Your task to perform on an android device: uninstall "Indeed Job Search" Image 0: 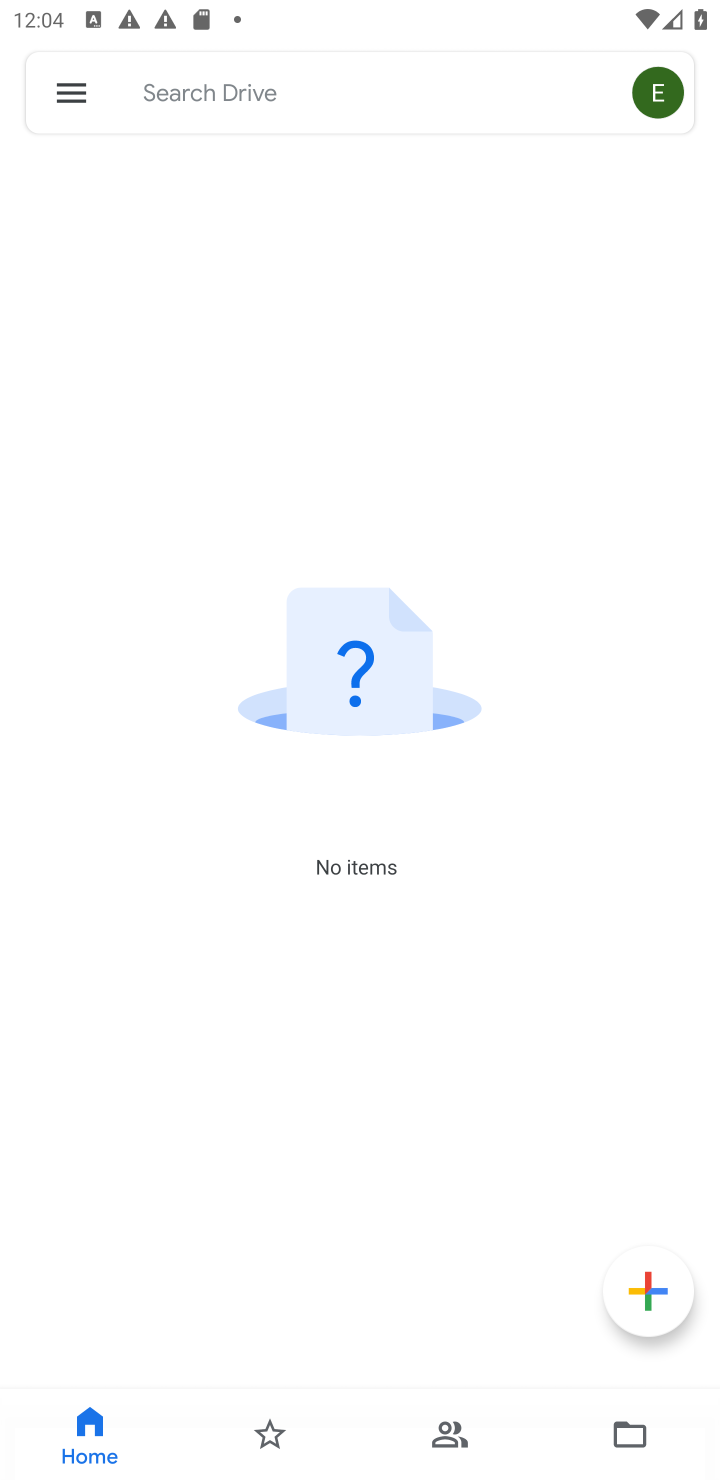
Step 0: press home button
Your task to perform on an android device: uninstall "Indeed Job Search" Image 1: 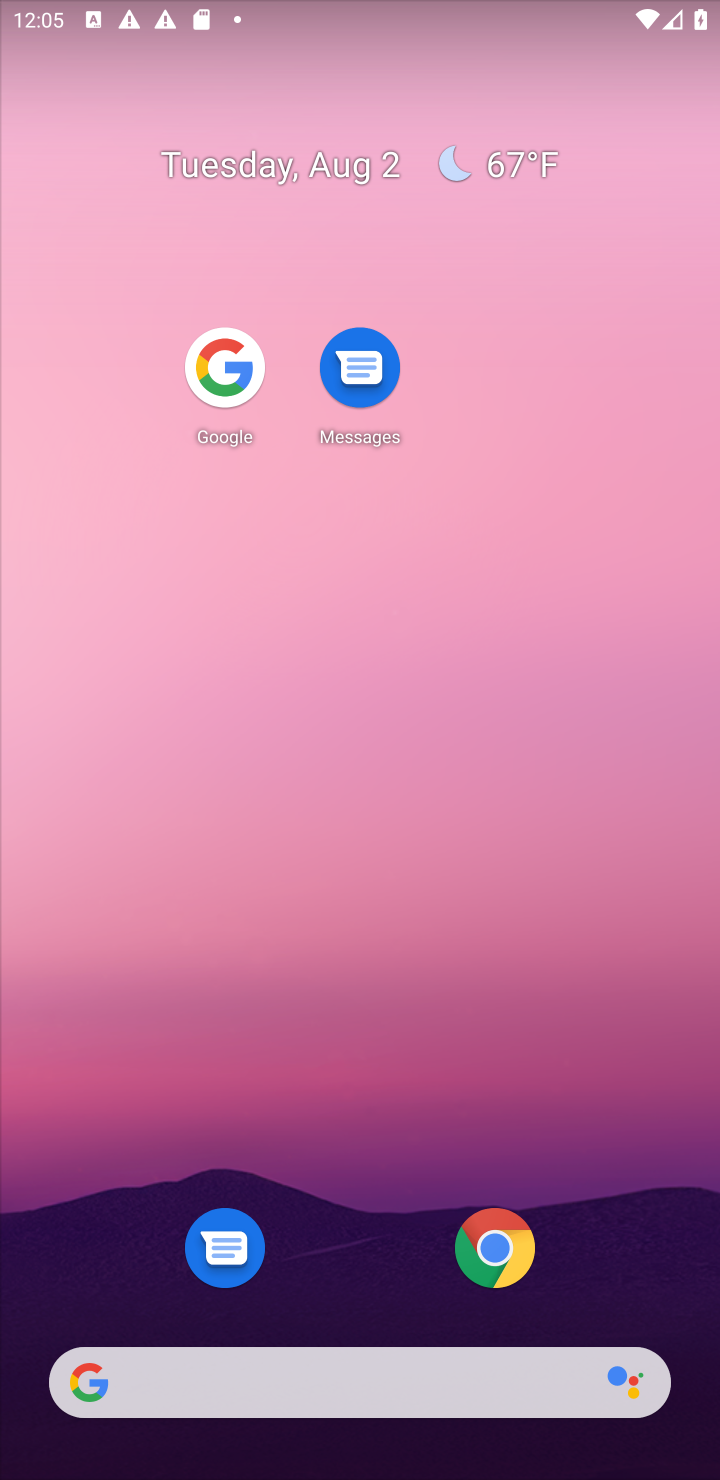
Step 1: drag from (609, 823) to (597, 183)
Your task to perform on an android device: uninstall "Indeed Job Search" Image 2: 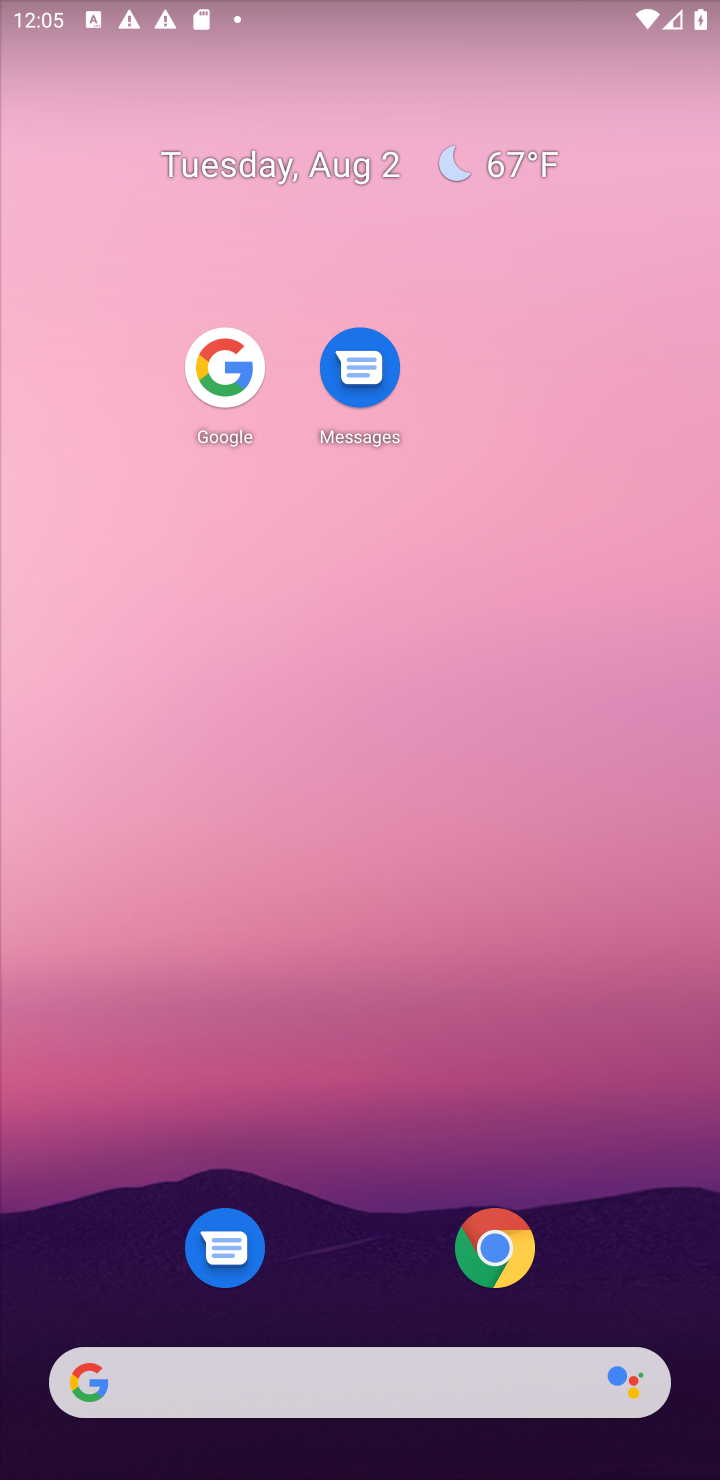
Step 2: drag from (615, 903) to (626, 162)
Your task to perform on an android device: uninstall "Indeed Job Search" Image 3: 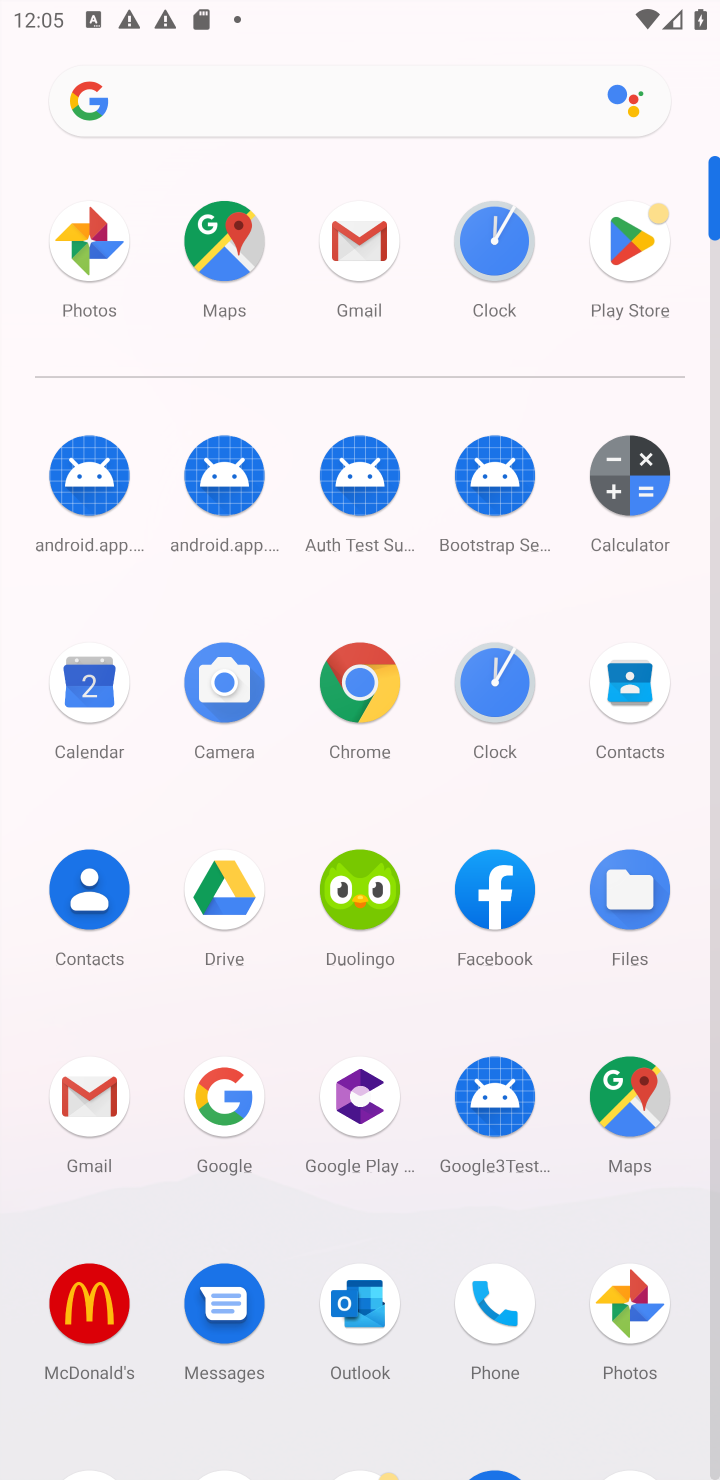
Step 3: drag from (295, 1226) to (334, 389)
Your task to perform on an android device: uninstall "Indeed Job Search" Image 4: 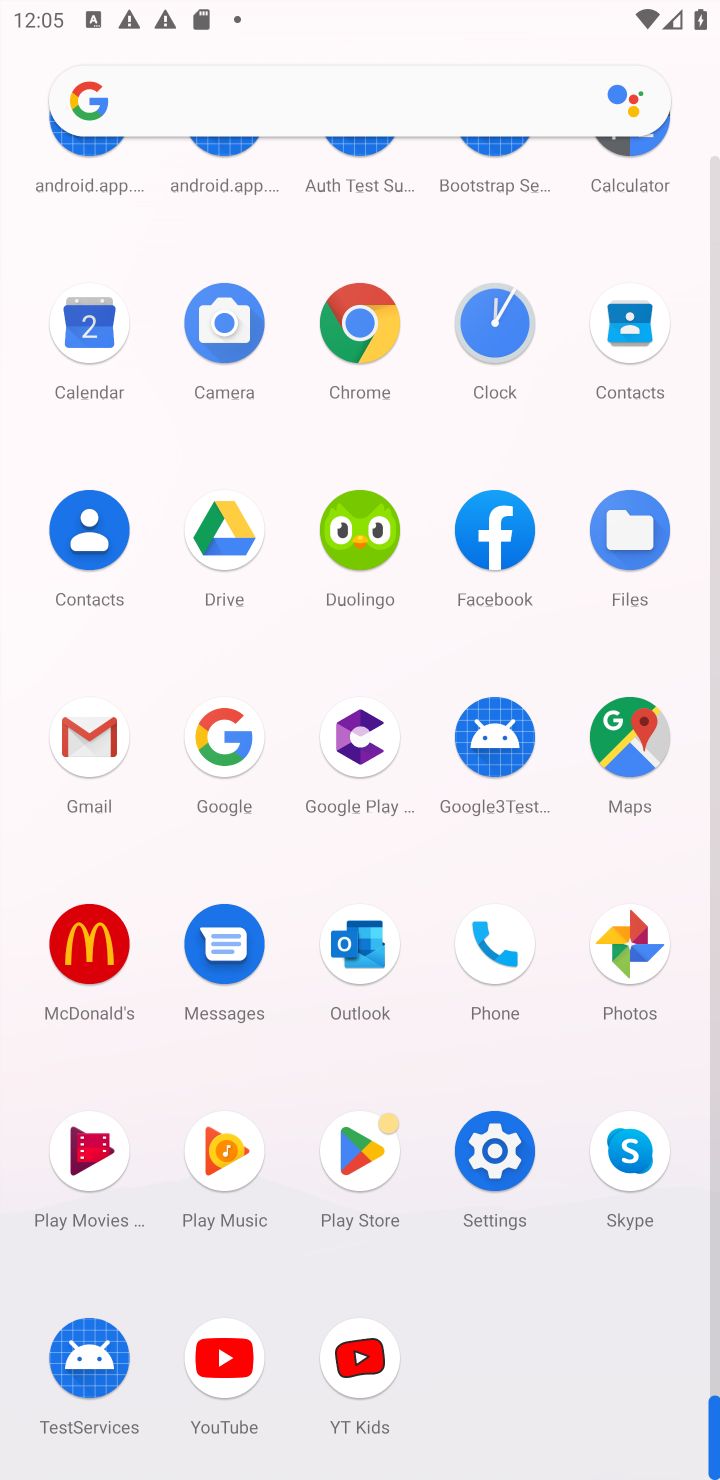
Step 4: click (370, 1154)
Your task to perform on an android device: uninstall "Indeed Job Search" Image 5: 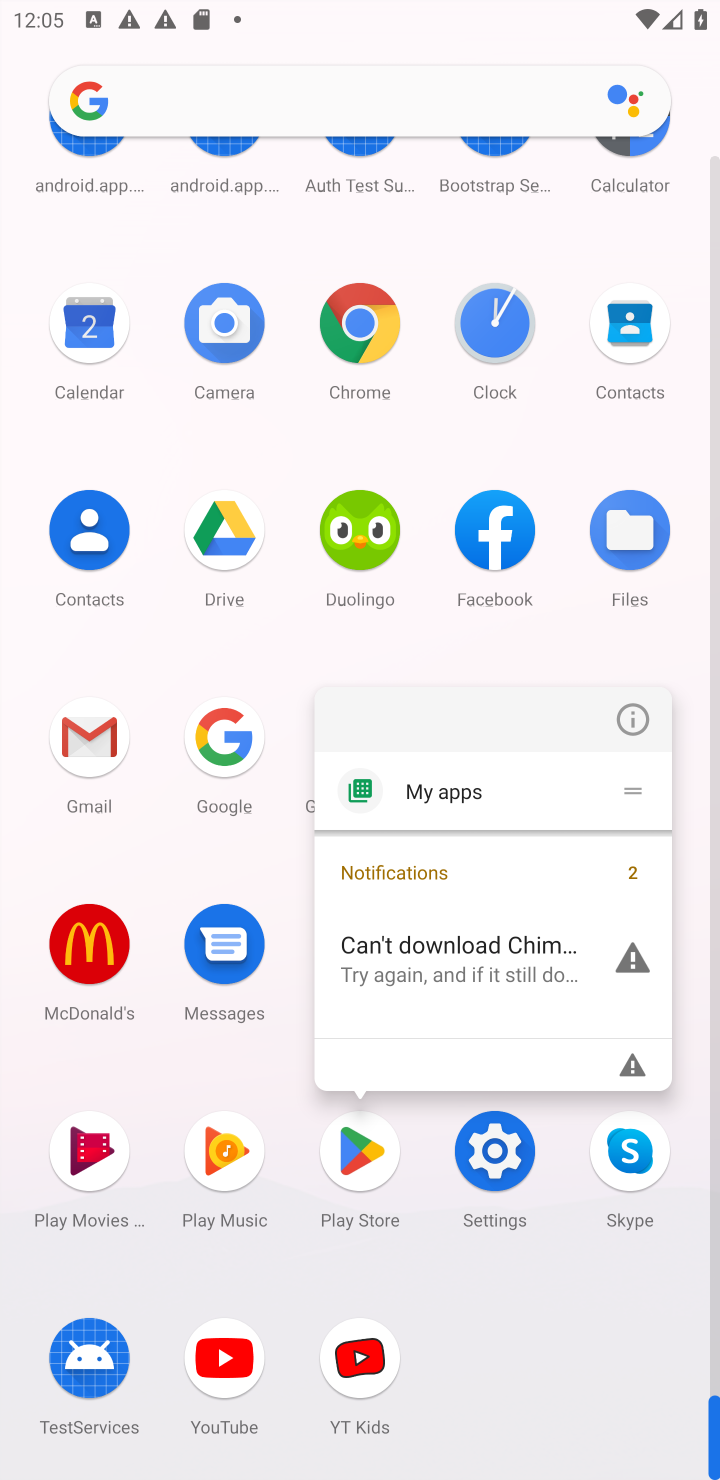
Step 5: click (370, 1154)
Your task to perform on an android device: uninstall "Indeed Job Search" Image 6: 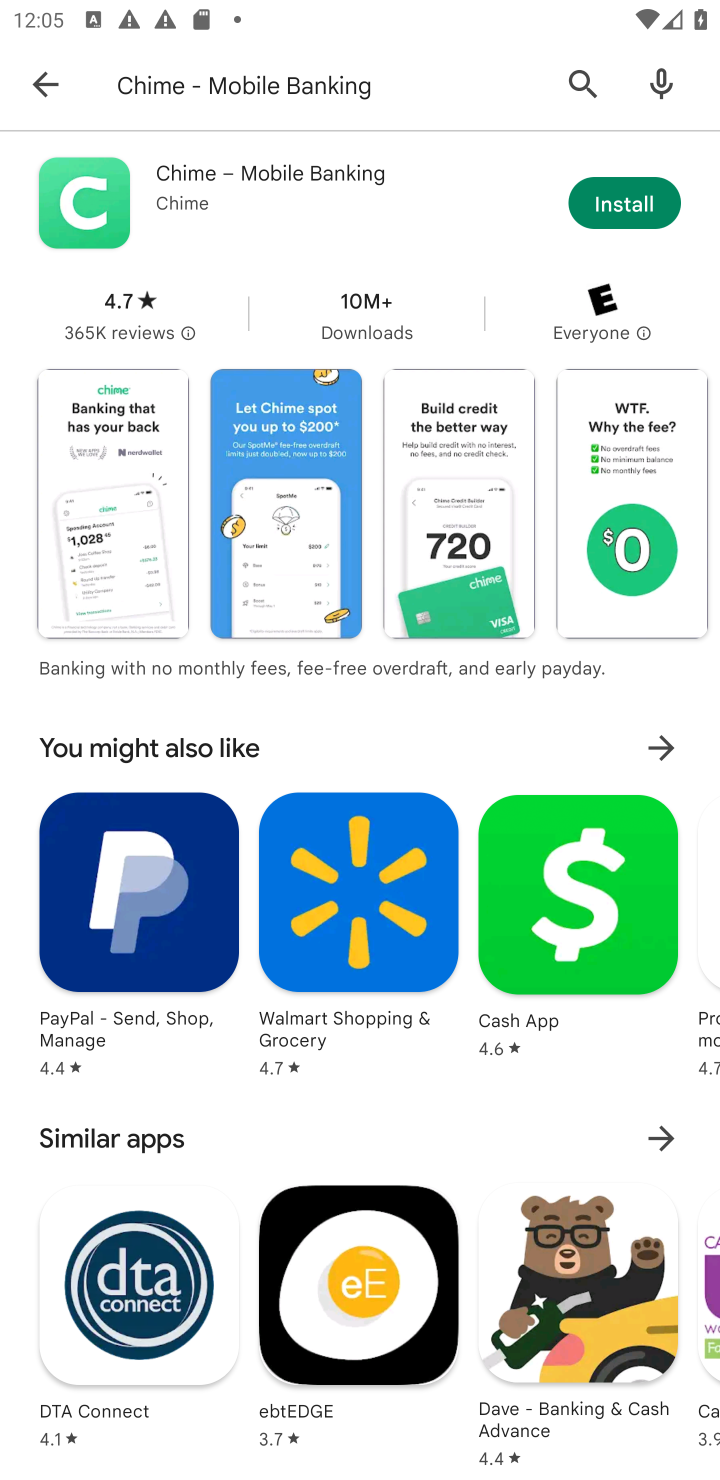
Step 6: click (419, 92)
Your task to perform on an android device: uninstall "Indeed Job Search" Image 7: 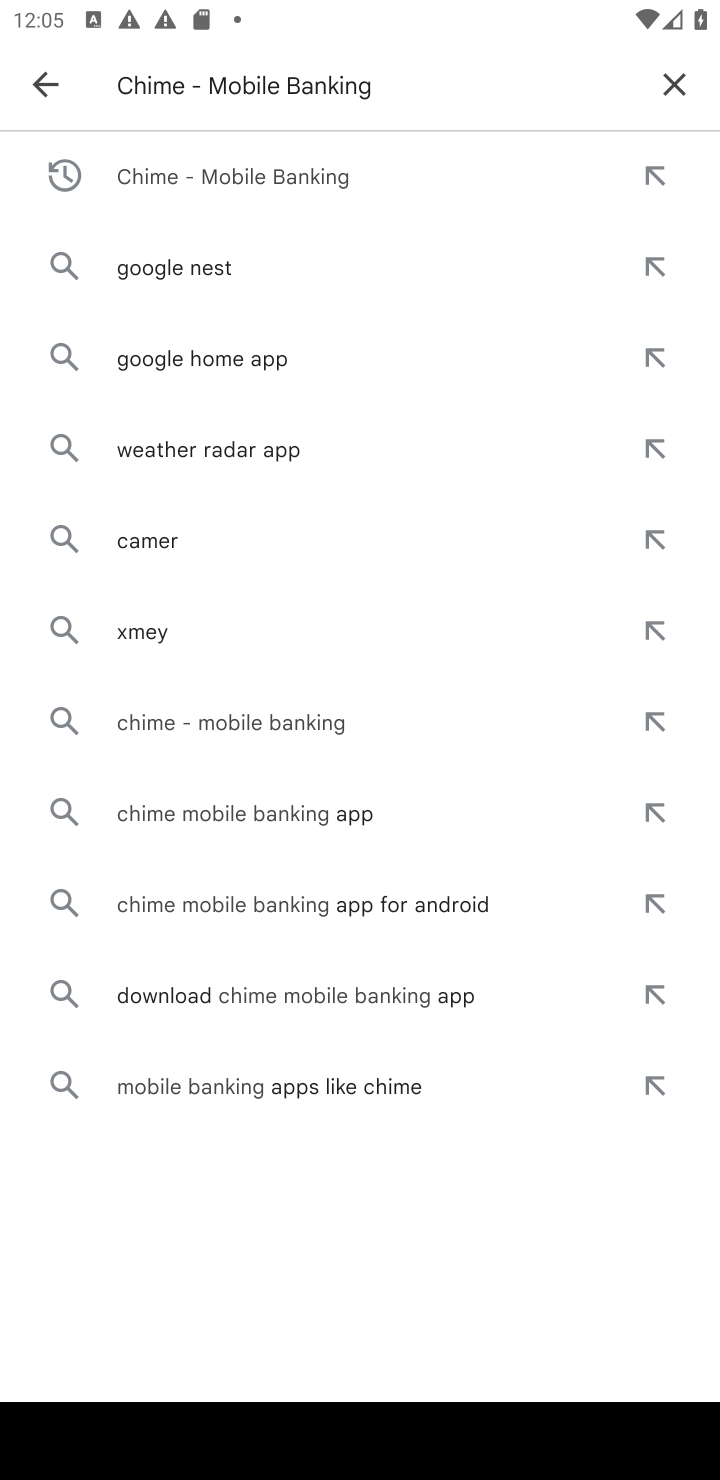
Step 7: click (684, 84)
Your task to perform on an android device: uninstall "Indeed Job Search" Image 8: 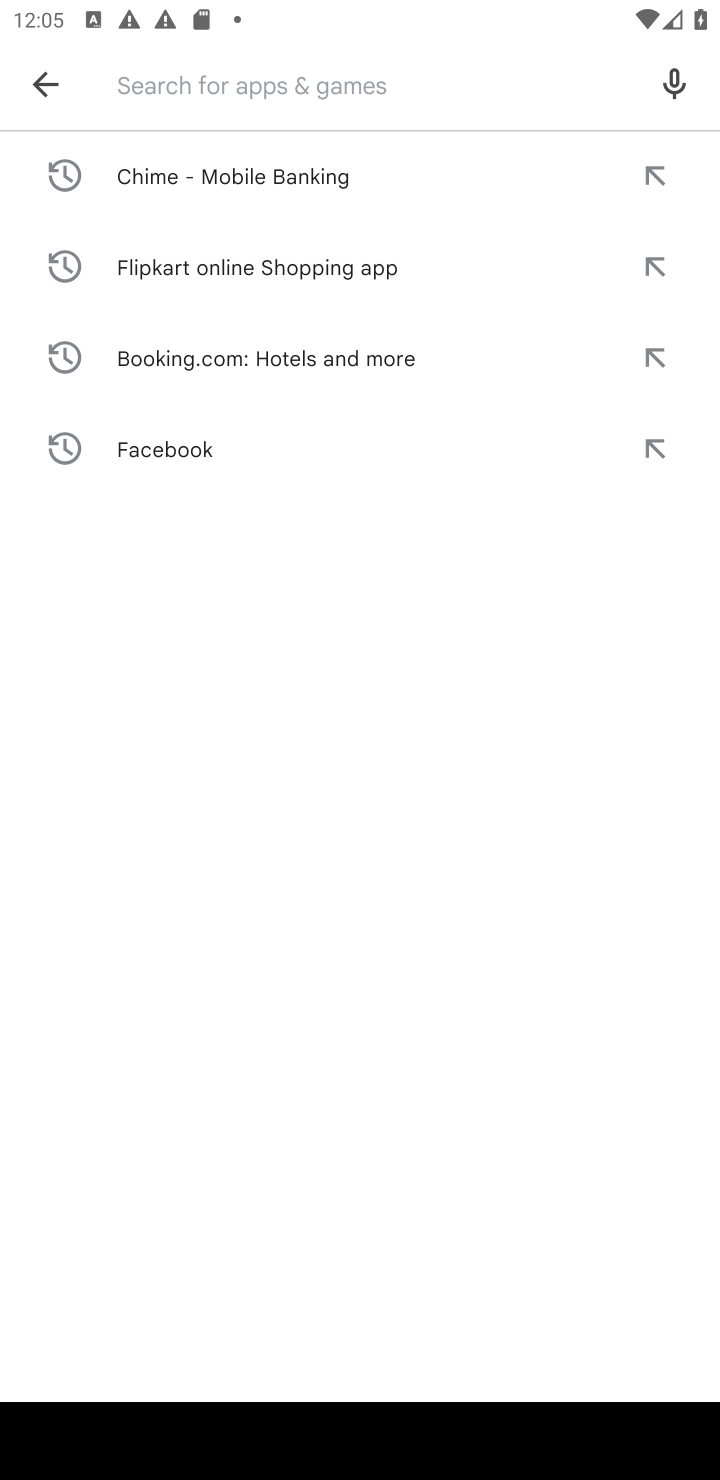
Step 8: type "Indeed Job Search"
Your task to perform on an android device: uninstall "Indeed Job Search" Image 9: 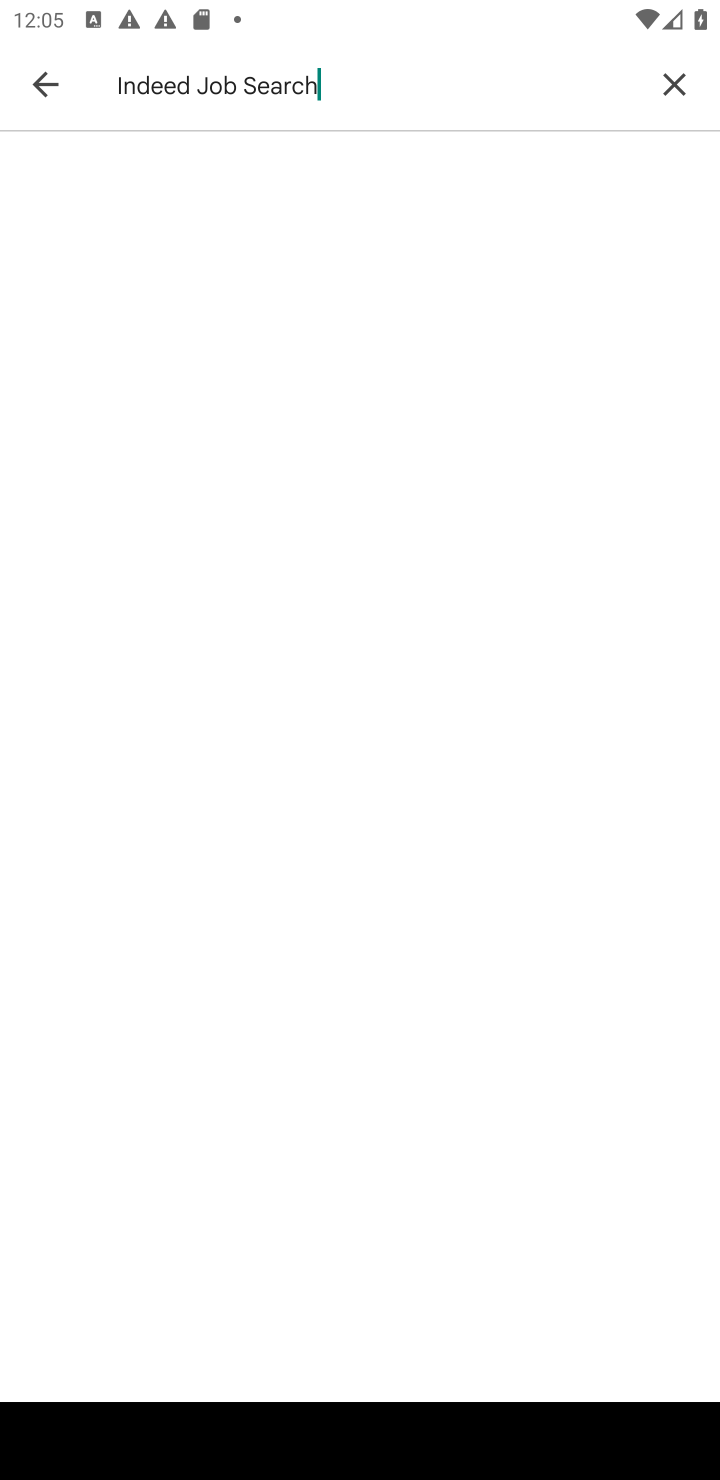
Step 9: press enter
Your task to perform on an android device: uninstall "Indeed Job Search" Image 10: 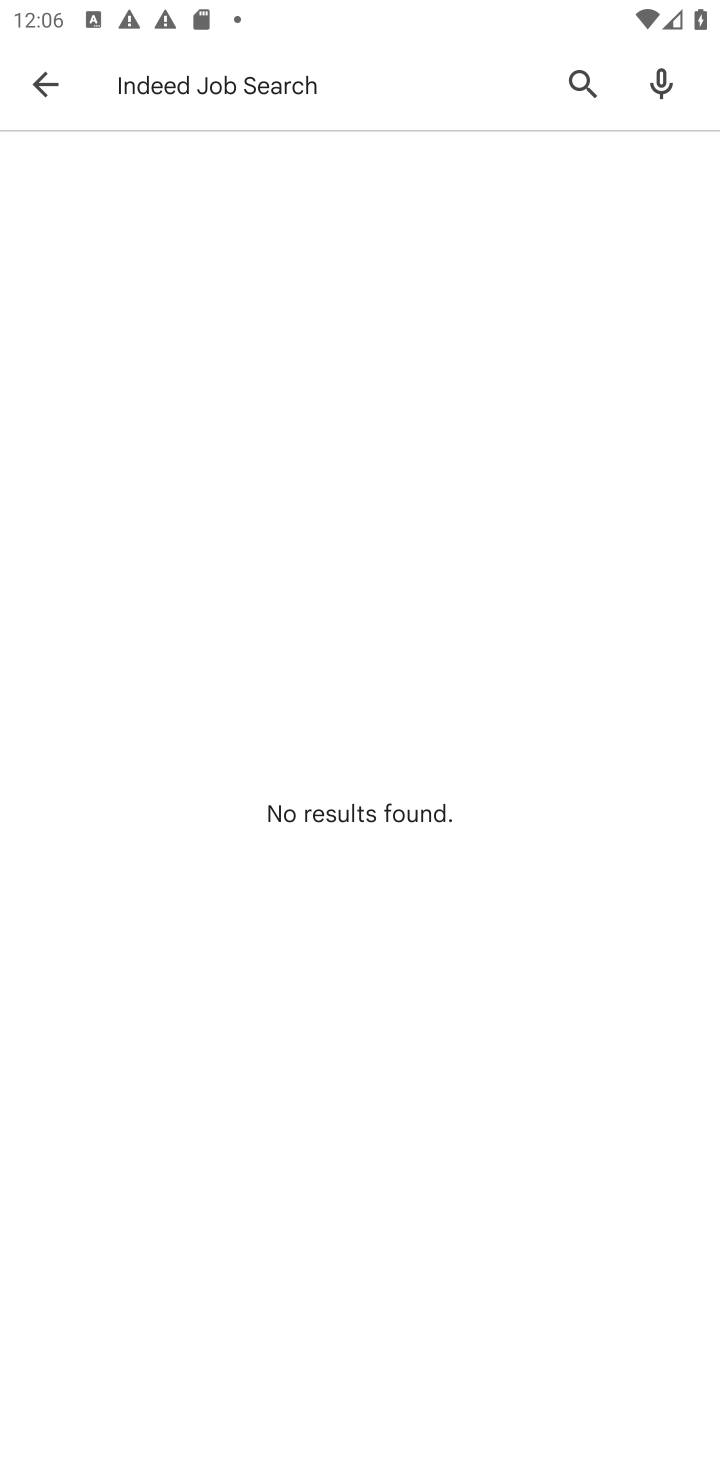
Step 10: task complete